Your task to perform on an android device: turn on the 24-hour format for clock Image 0: 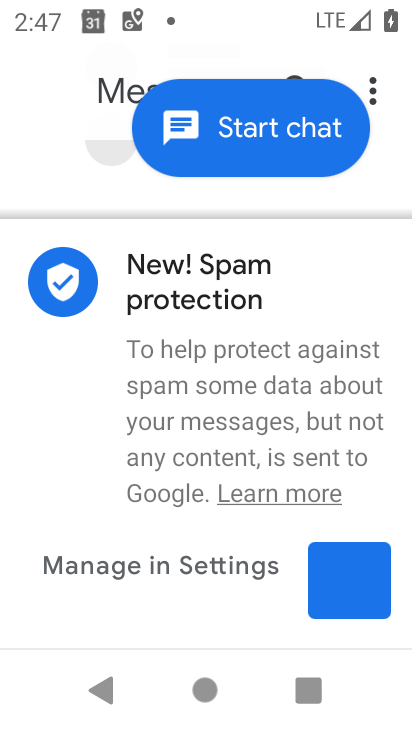
Step 0: press home button
Your task to perform on an android device: turn on the 24-hour format for clock Image 1: 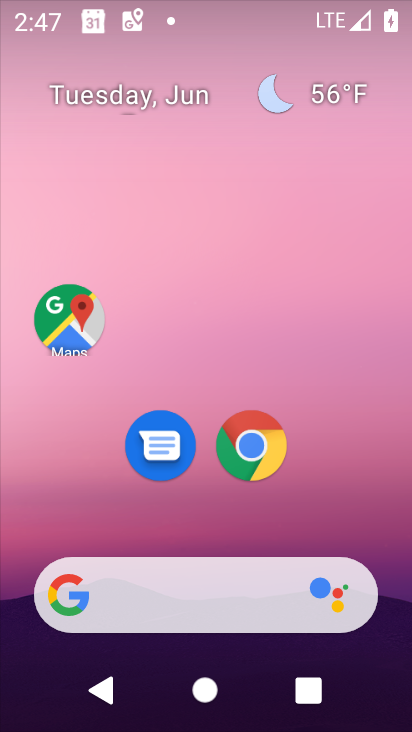
Step 1: drag from (251, 588) to (283, 23)
Your task to perform on an android device: turn on the 24-hour format for clock Image 2: 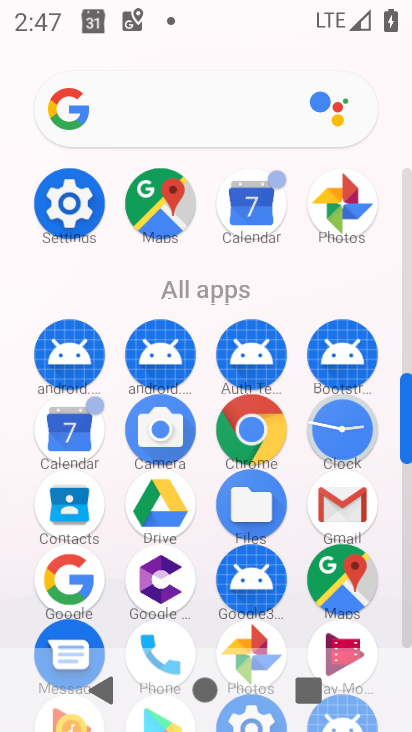
Step 2: click (336, 414)
Your task to perform on an android device: turn on the 24-hour format for clock Image 3: 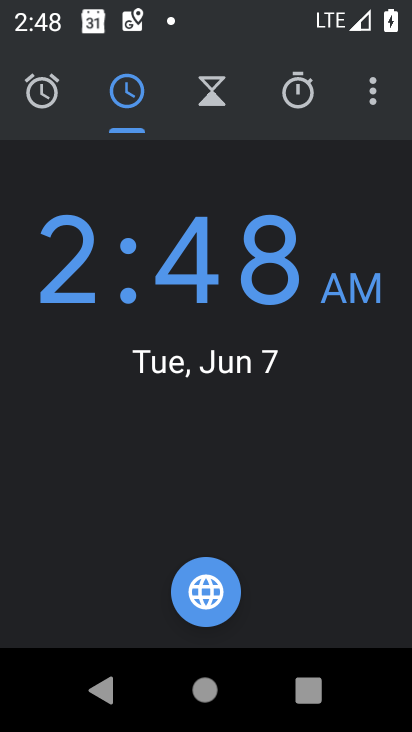
Step 3: click (377, 88)
Your task to perform on an android device: turn on the 24-hour format for clock Image 4: 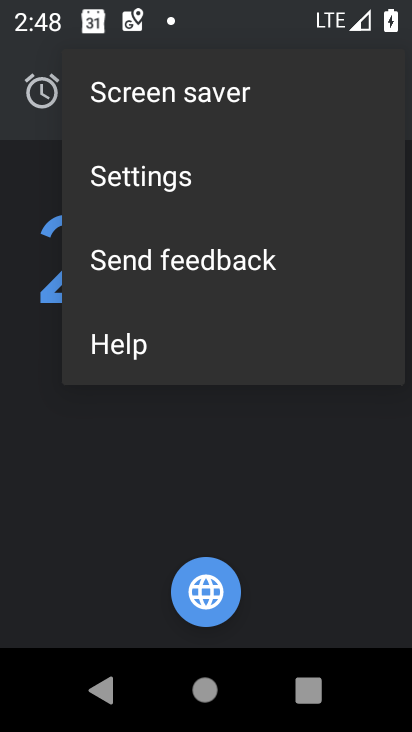
Step 4: click (279, 178)
Your task to perform on an android device: turn on the 24-hour format for clock Image 5: 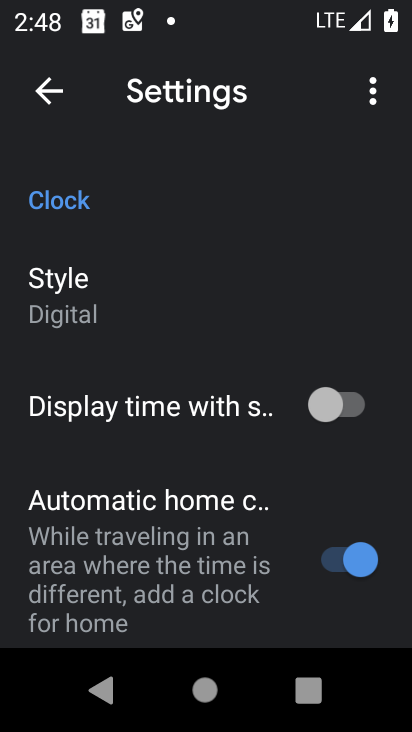
Step 5: drag from (208, 598) to (217, 142)
Your task to perform on an android device: turn on the 24-hour format for clock Image 6: 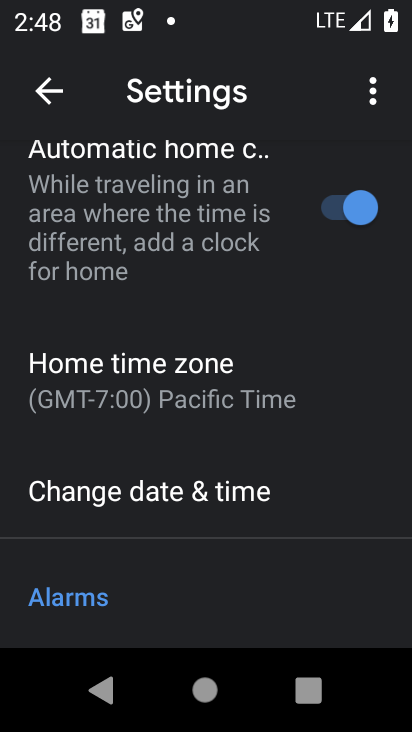
Step 6: click (238, 488)
Your task to perform on an android device: turn on the 24-hour format for clock Image 7: 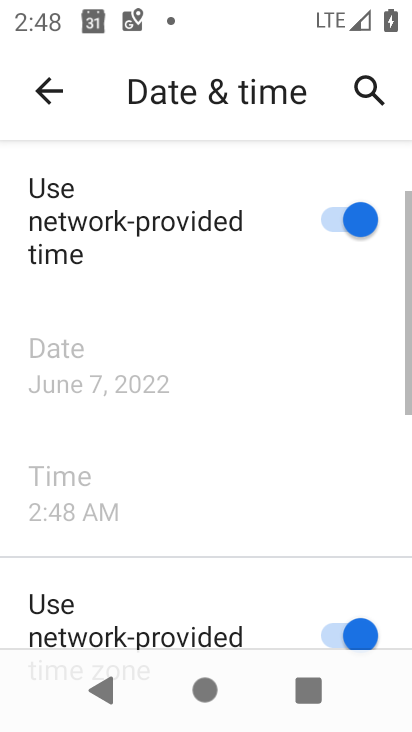
Step 7: drag from (239, 582) to (266, 135)
Your task to perform on an android device: turn on the 24-hour format for clock Image 8: 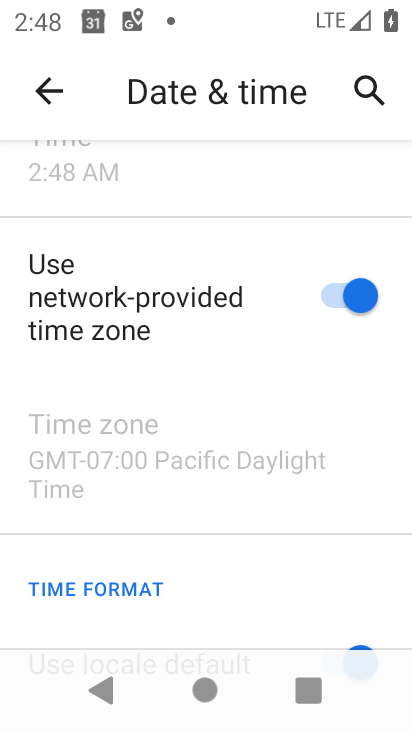
Step 8: drag from (306, 516) to (286, 215)
Your task to perform on an android device: turn on the 24-hour format for clock Image 9: 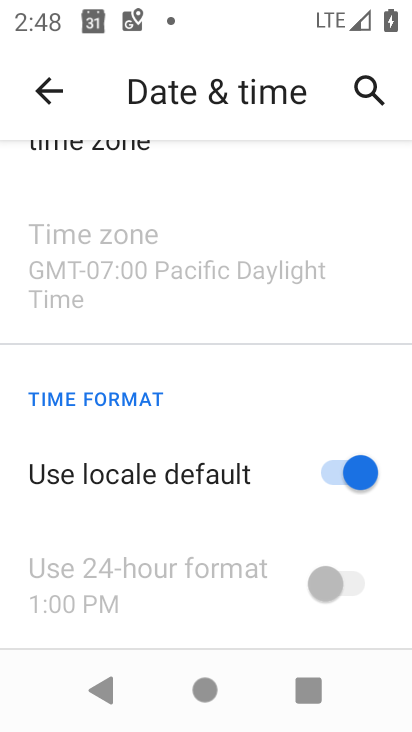
Step 9: click (364, 482)
Your task to perform on an android device: turn on the 24-hour format for clock Image 10: 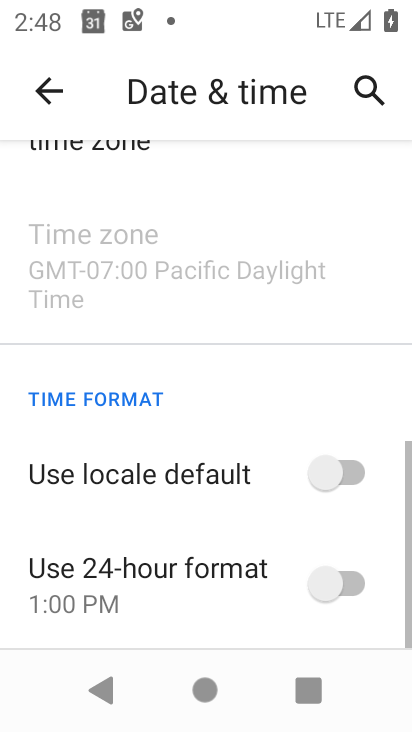
Step 10: click (355, 584)
Your task to perform on an android device: turn on the 24-hour format for clock Image 11: 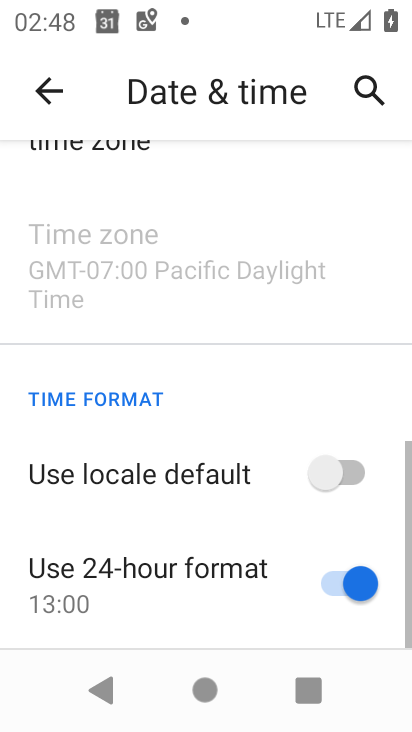
Step 11: task complete